Your task to perform on an android device: Go to Maps Image 0: 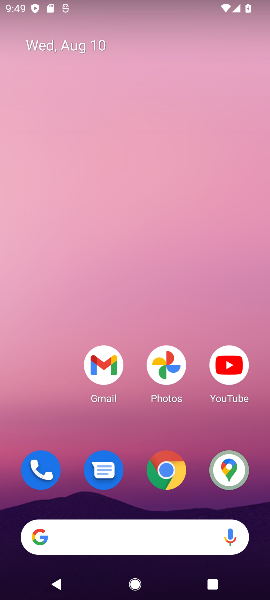
Step 0: drag from (158, 329) to (139, 24)
Your task to perform on an android device: Go to Maps Image 1: 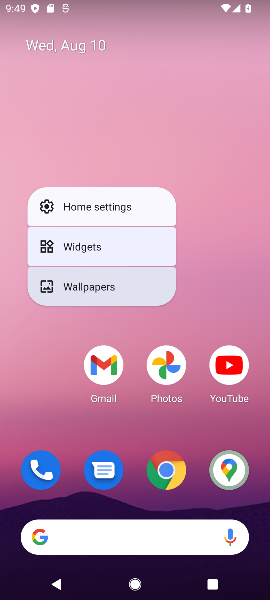
Step 1: drag from (101, 18) to (128, 1)
Your task to perform on an android device: Go to Maps Image 2: 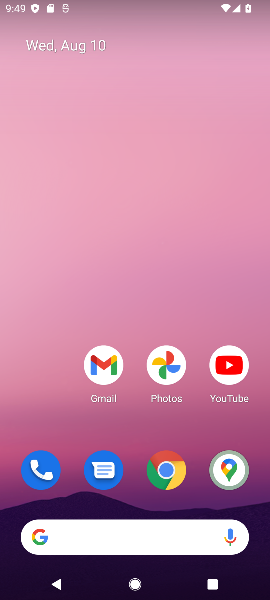
Step 2: drag from (138, 395) to (108, 140)
Your task to perform on an android device: Go to Maps Image 3: 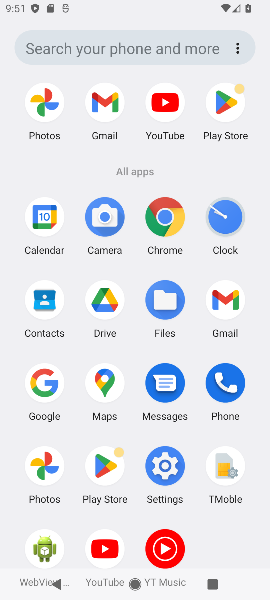
Step 3: click (96, 380)
Your task to perform on an android device: Go to Maps Image 4: 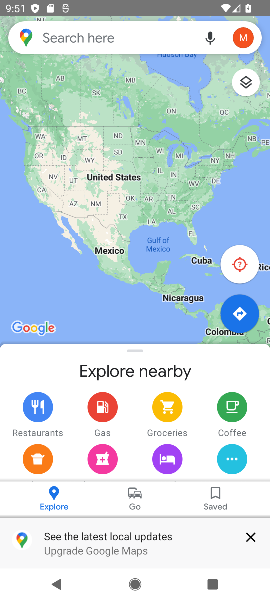
Step 4: task complete